Your task to perform on an android device: open a new tab in the chrome app Image 0: 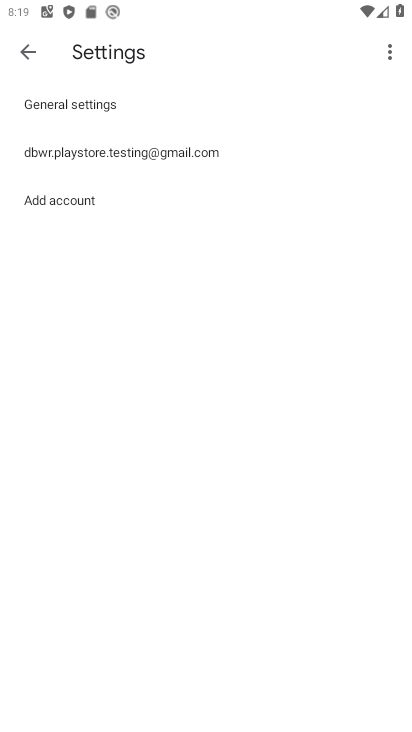
Step 0: press back button
Your task to perform on an android device: open a new tab in the chrome app Image 1: 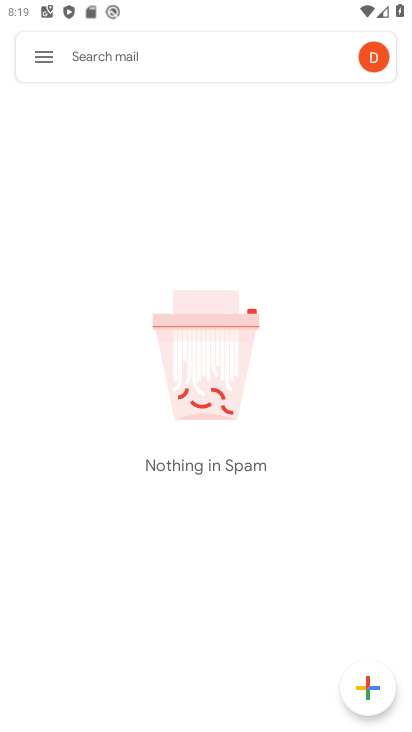
Step 1: press back button
Your task to perform on an android device: open a new tab in the chrome app Image 2: 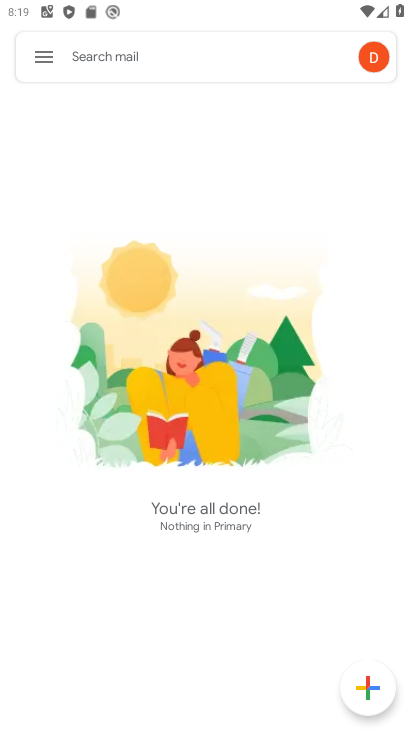
Step 2: press back button
Your task to perform on an android device: open a new tab in the chrome app Image 3: 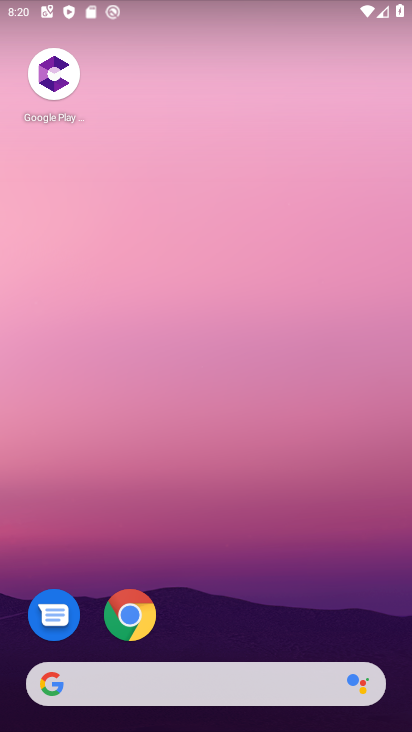
Step 3: click (131, 614)
Your task to perform on an android device: open a new tab in the chrome app Image 4: 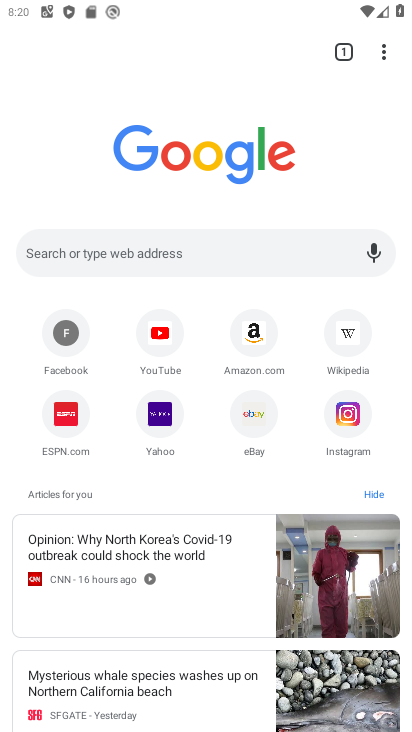
Step 4: click (383, 50)
Your task to perform on an android device: open a new tab in the chrome app Image 5: 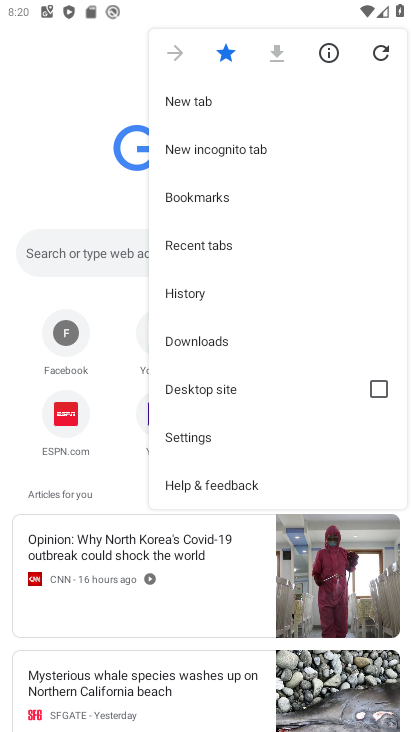
Step 5: click (207, 99)
Your task to perform on an android device: open a new tab in the chrome app Image 6: 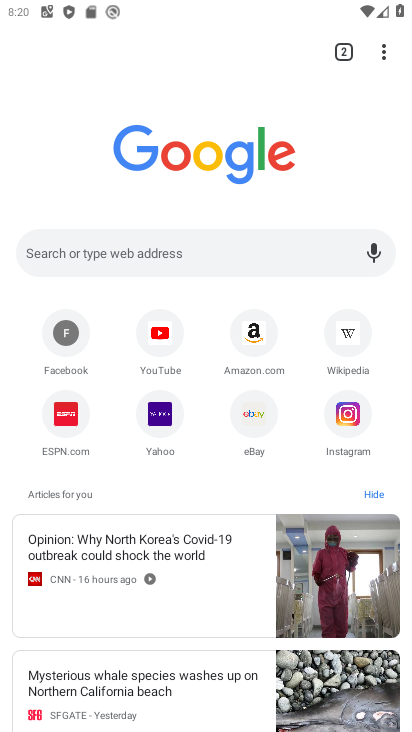
Step 6: task complete